Your task to perform on an android device: check out phone information Image 0: 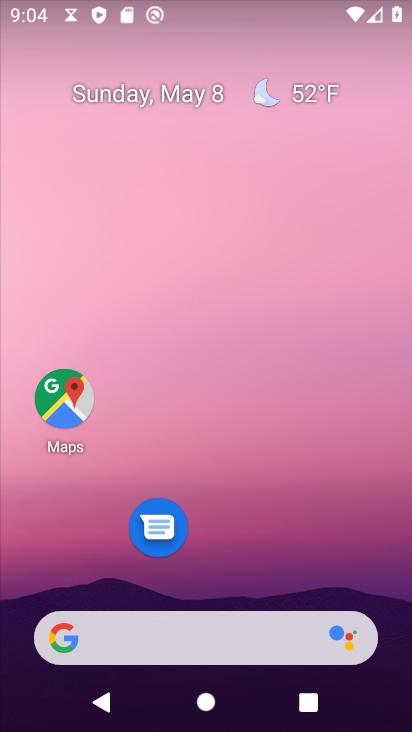
Step 0: drag from (241, 523) to (250, 48)
Your task to perform on an android device: check out phone information Image 1: 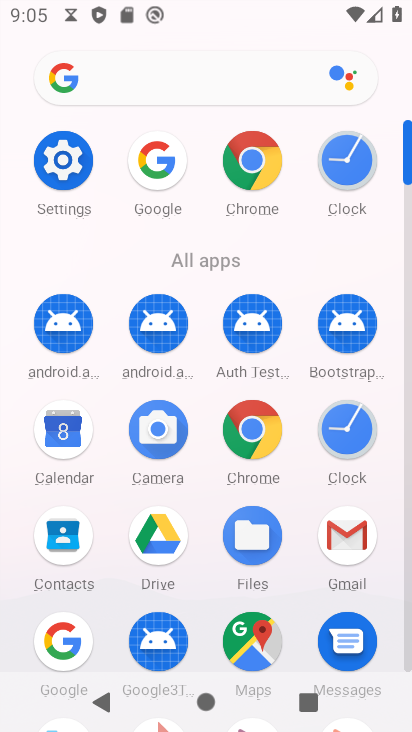
Step 1: click (62, 157)
Your task to perform on an android device: check out phone information Image 2: 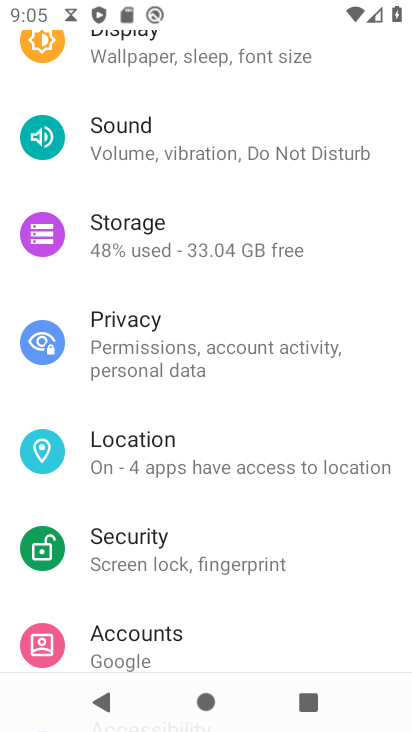
Step 2: drag from (220, 200) to (205, 366)
Your task to perform on an android device: check out phone information Image 3: 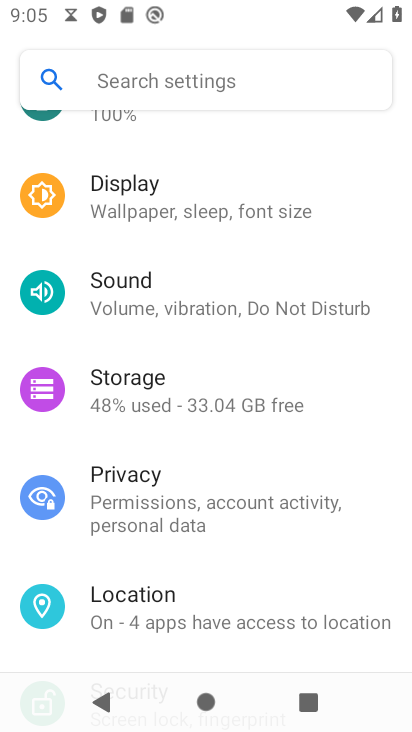
Step 3: drag from (196, 266) to (210, 415)
Your task to perform on an android device: check out phone information Image 4: 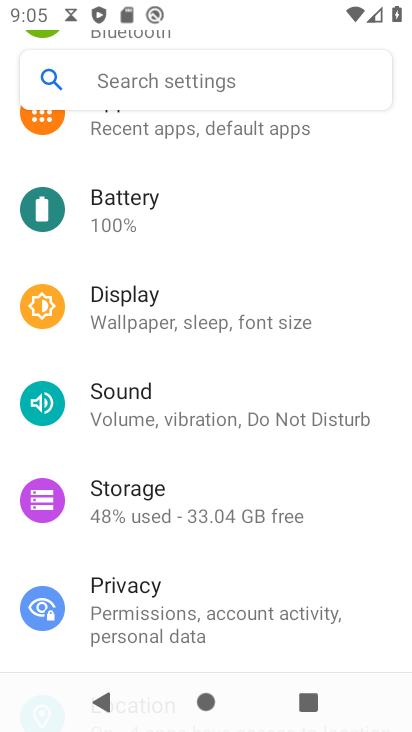
Step 4: drag from (197, 285) to (233, 440)
Your task to perform on an android device: check out phone information Image 5: 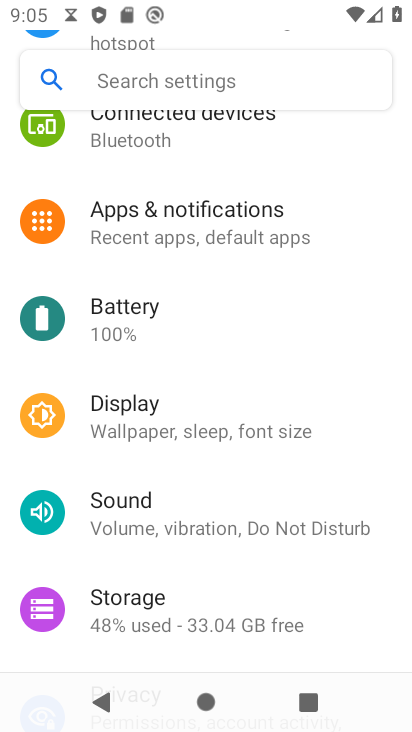
Step 5: drag from (195, 175) to (261, 373)
Your task to perform on an android device: check out phone information Image 6: 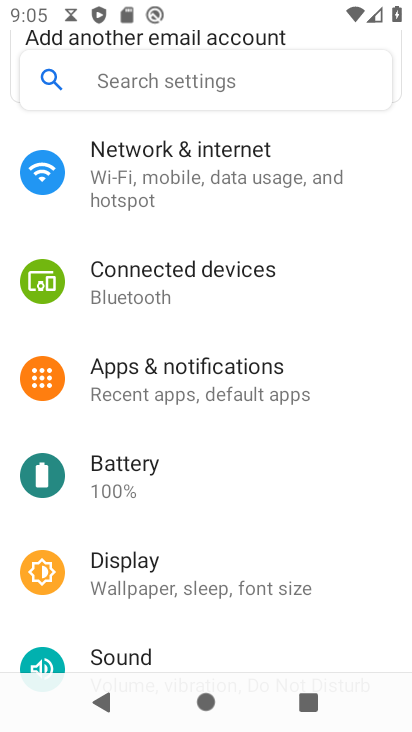
Step 6: drag from (177, 492) to (234, 325)
Your task to perform on an android device: check out phone information Image 7: 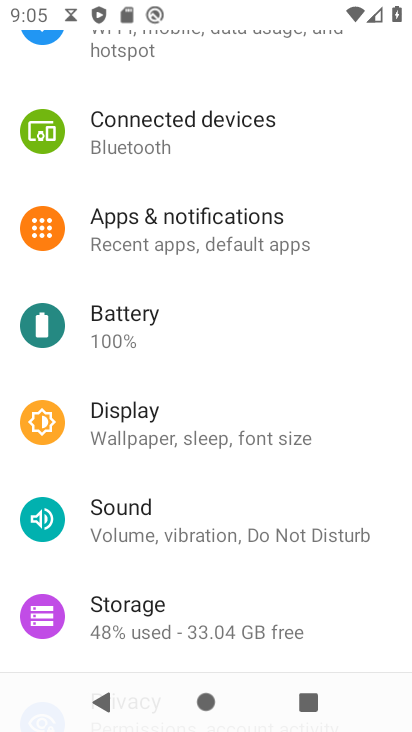
Step 7: drag from (198, 479) to (262, 326)
Your task to perform on an android device: check out phone information Image 8: 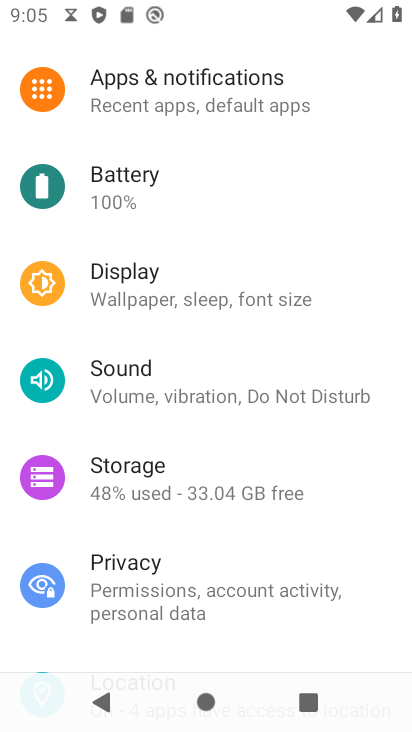
Step 8: drag from (207, 442) to (264, 323)
Your task to perform on an android device: check out phone information Image 9: 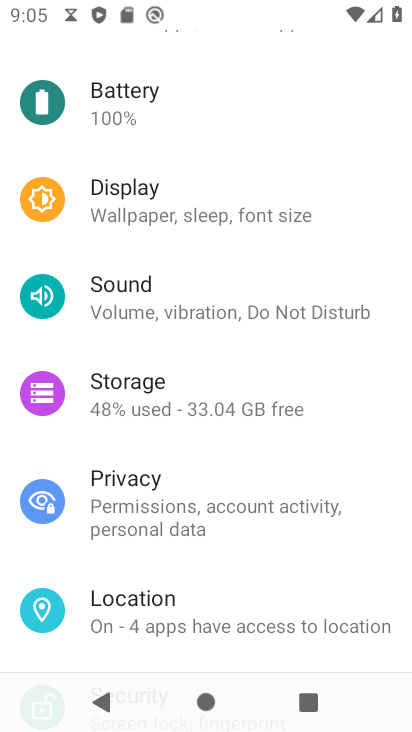
Step 9: drag from (184, 536) to (281, 406)
Your task to perform on an android device: check out phone information Image 10: 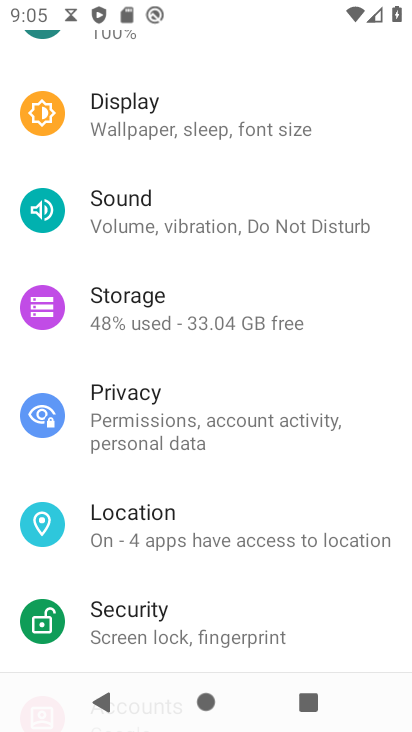
Step 10: drag from (198, 574) to (276, 420)
Your task to perform on an android device: check out phone information Image 11: 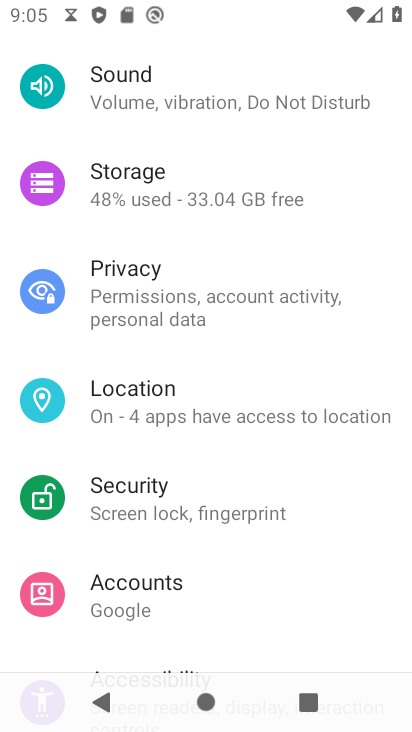
Step 11: drag from (195, 565) to (273, 431)
Your task to perform on an android device: check out phone information Image 12: 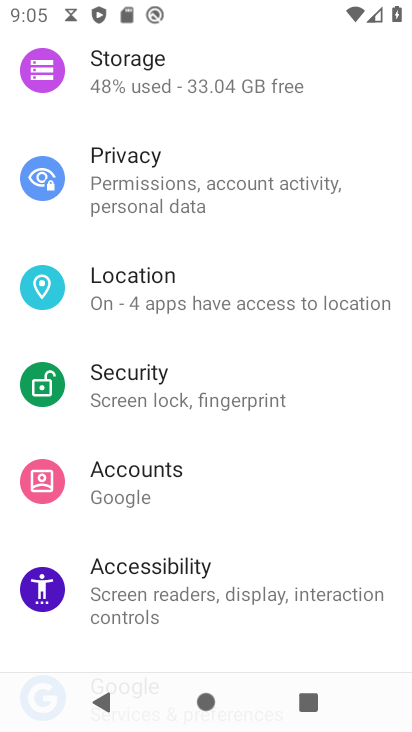
Step 12: drag from (212, 516) to (287, 387)
Your task to perform on an android device: check out phone information Image 13: 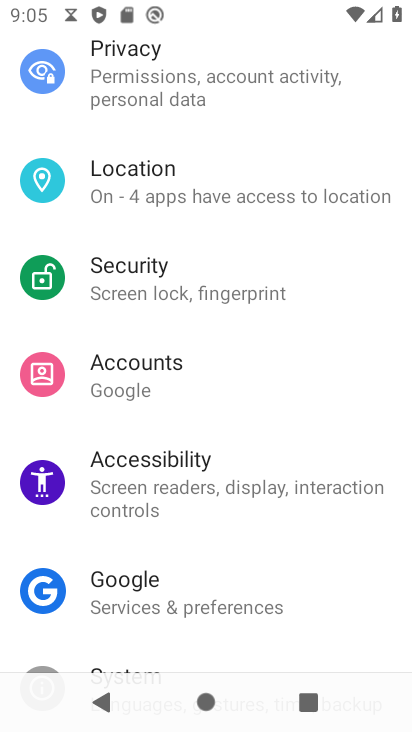
Step 13: drag from (229, 528) to (309, 373)
Your task to perform on an android device: check out phone information Image 14: 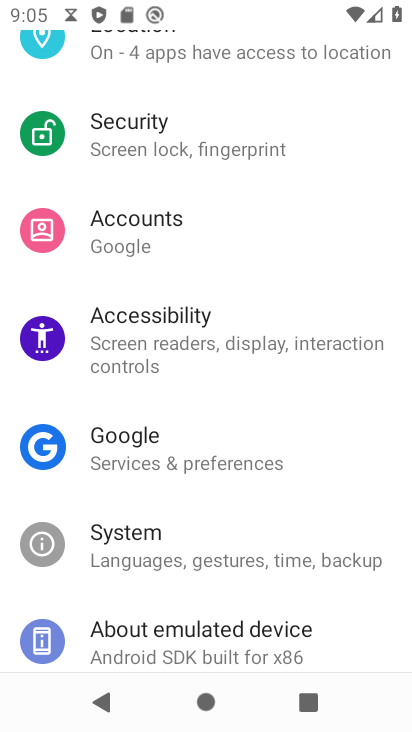
Step 14: drag from (173, 590) to (239, 454)
Your task to perform on an android device: check out phone information Image 15: 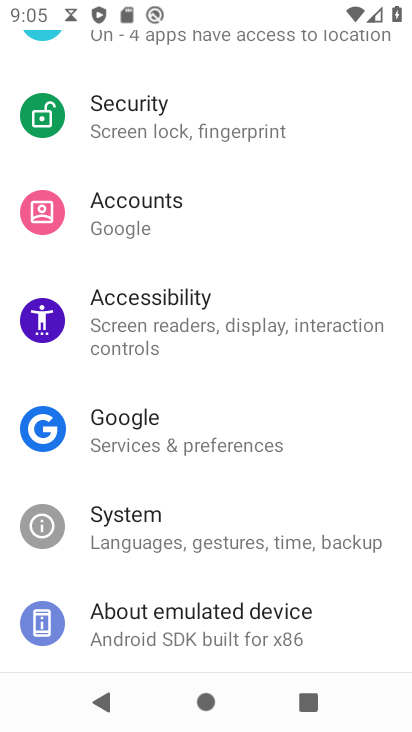
Step 15: click (156, 609)
Your task to perform on an android device: check out phone information Image 16: 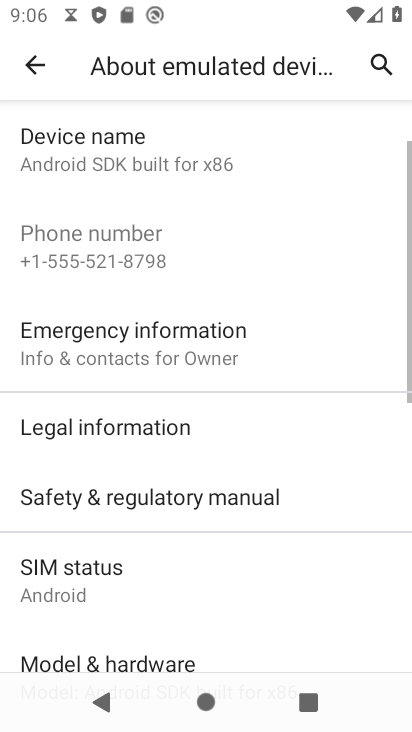
Step 16: task complete